Your task to perform on an android device: open sync settings in chrome Image 0: 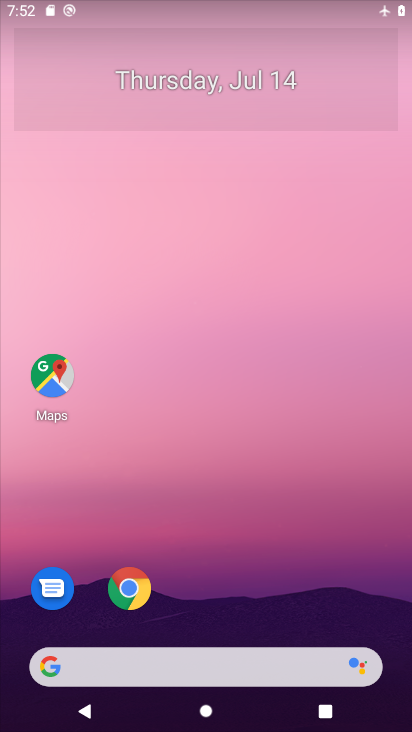
Step 0: click (130, 615)
Your task to perform on an android device: open sync settings in chrome Image 1: 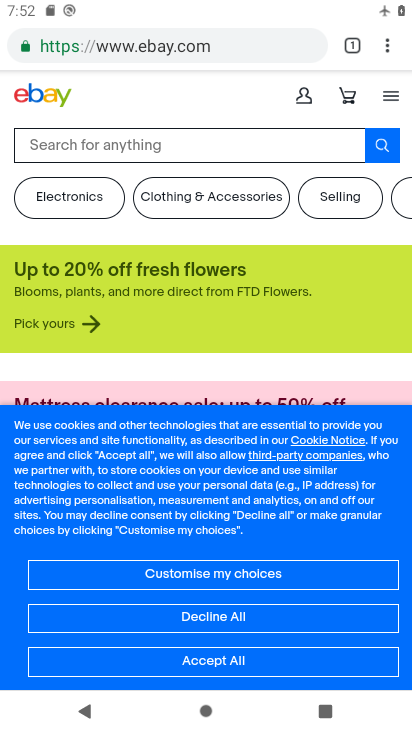
Step 1: click (130, 615)
Your task to perform on an android device: open sync settings in chrome Image 2: 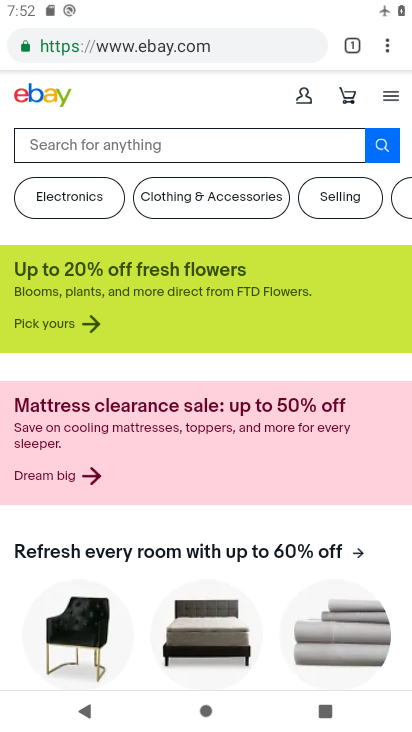
Step 2: click (385, 39)
Your task to perform on an android device: open sync settings in chrome Image 3: 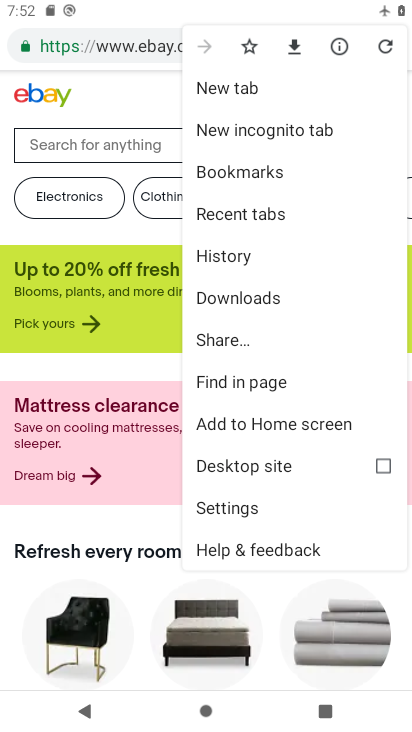
Step 3: click (232, 518)
Your task to perform on an android device: open sync settings in chrome Image 4: 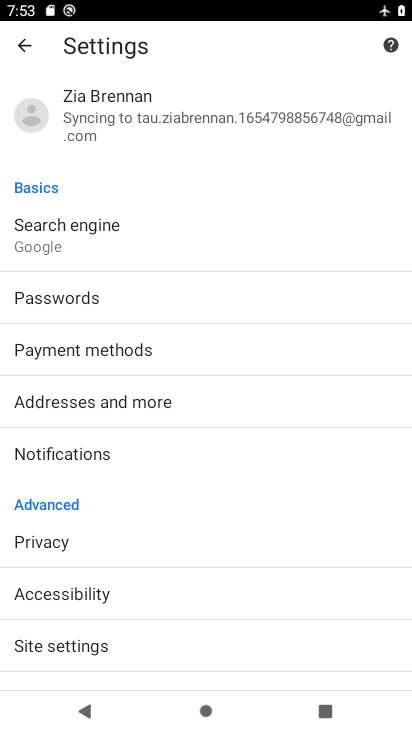
Step 4: click (131, 151)
Your task to perform on an android device: open sync settings in chrome Image 5: 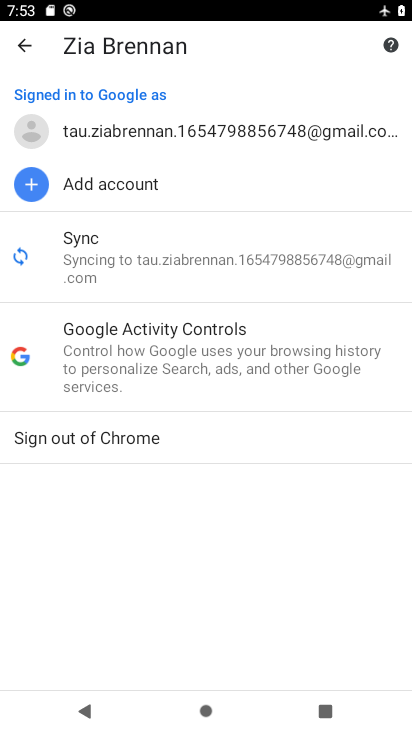
Step 5: click (136, 263)
Your task to perform on an android device: open sync settings in chrome Image 6: 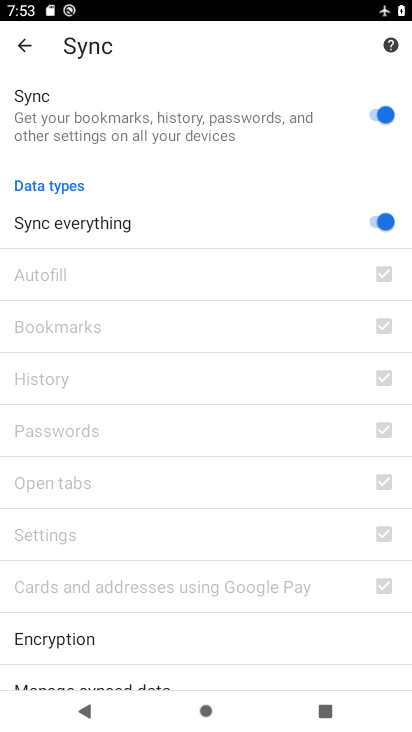
Step 6: task complete